Your task to perform on an android device: open wifi settings Image 0: 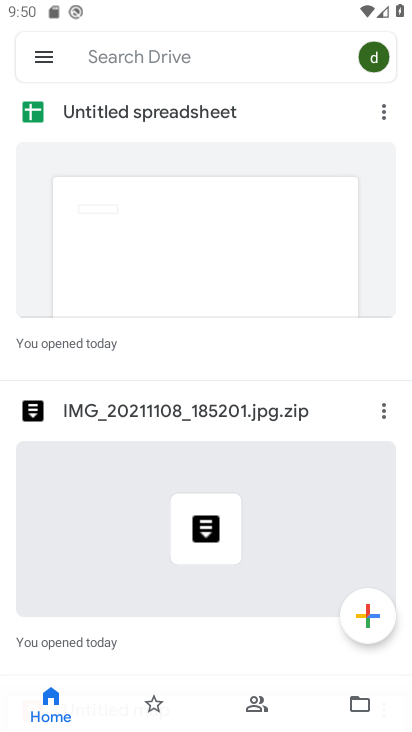
Step 0: press home button
Your task to perform on an android device: open wifi settings Image 1: 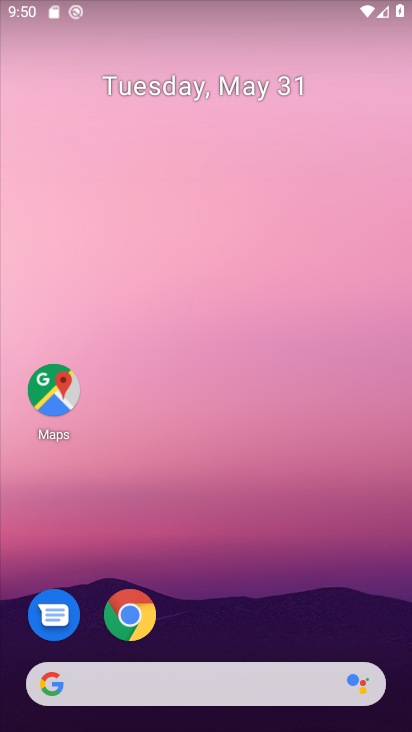
Step 1: drag from (297, 443) to (306, 68)
Your task to perform on an android device: open wifi settings Image 2: 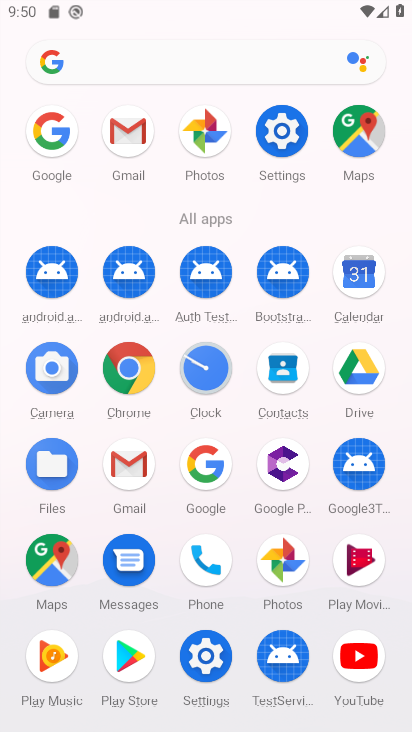
Step 2: click (276, 126)
Your task to perform on an android device: open wifi settings Image 3: 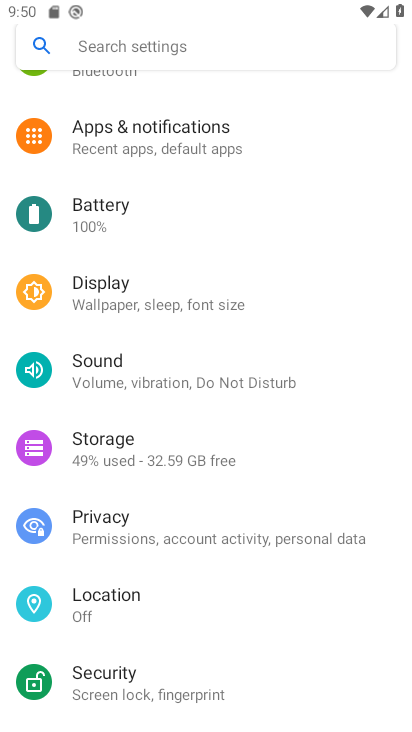
Step 3: drag from (232, 209) to (287, 662)
Your task to perform on an android device: open wifi settings Image 4: 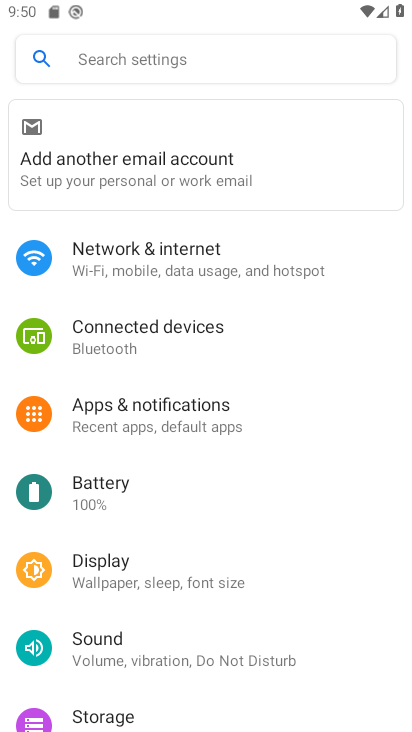
Step 4: click (211, 266)
Your task to perform on an android device: open wifi settings Image 5: 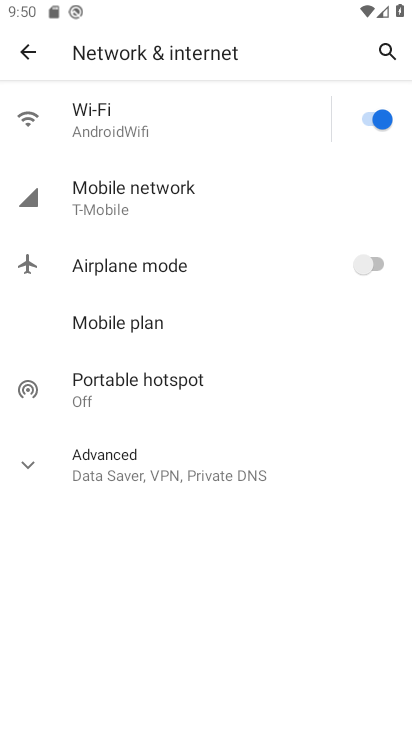
Step 5: click (107, 122)
Your task to perform on an android device: open wifi settings Image 6: 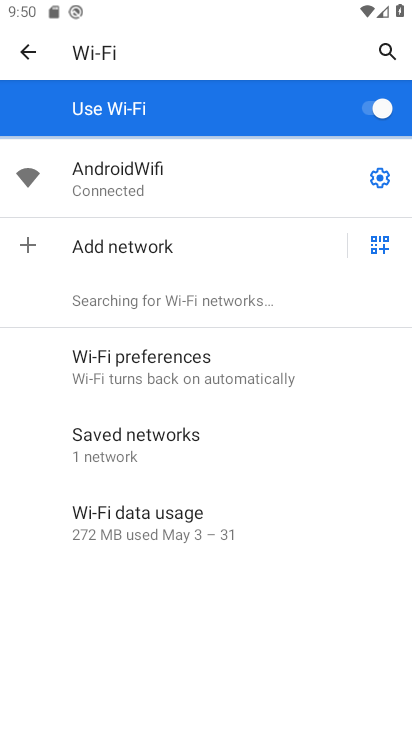
Step 6: task complete